Your task to perform on an android device: turn on data saver in the chrome app Image 0: 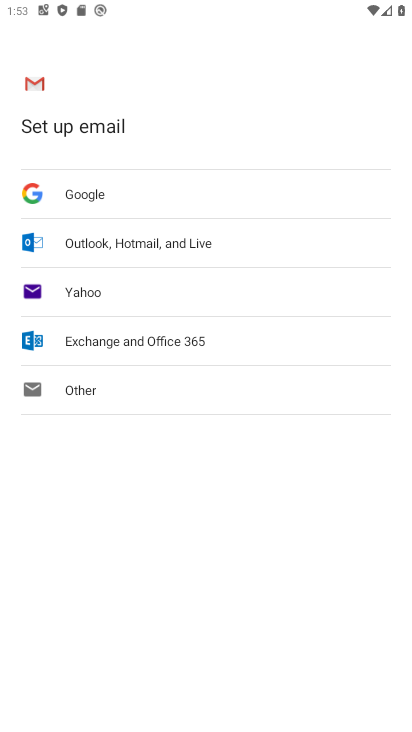
Step 0: press home button
Your task to perform on an android device: turn on data saver in the chrome app Image 1: 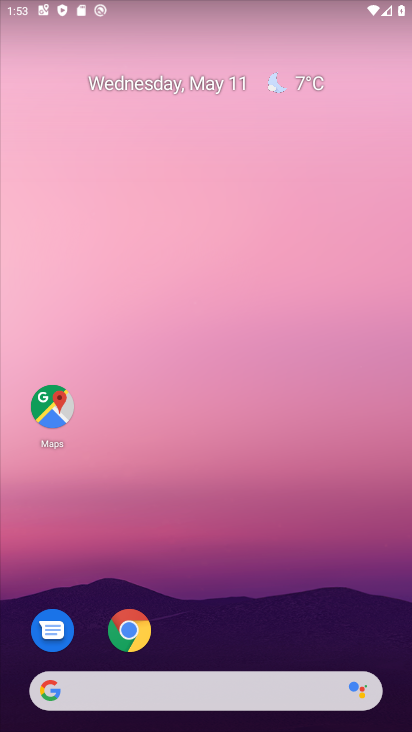
Step 1: drag from (381, 641) to (295, 69)
Your task to perform on an android device: turn on data saver in the chrome app Image 2: 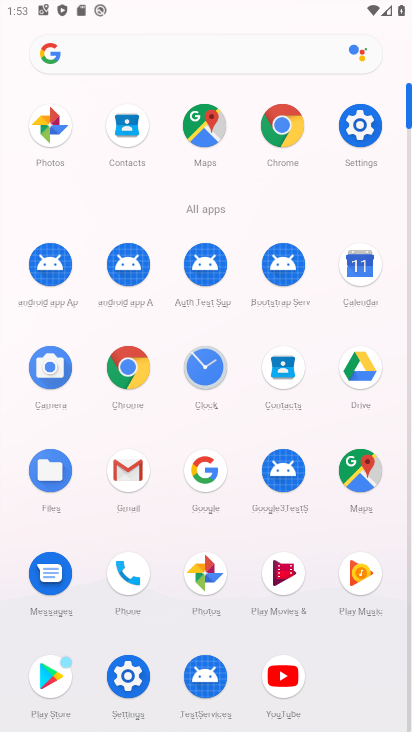
Step 2: click (292, 133)
Your task to perform on an android device: turn on data saver in the chrome app Image 3: 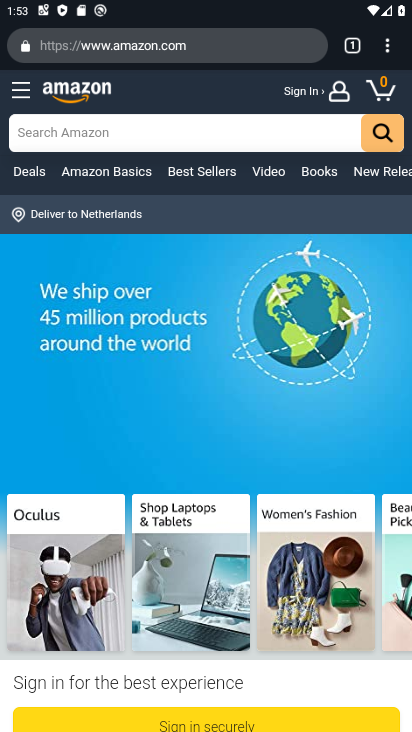
Step 3: press back button
Your task to perform on an android device: turn on data saver in the chrome app Image 4: 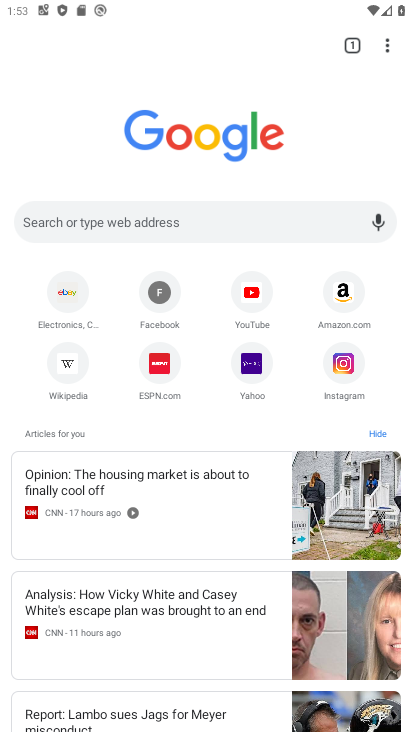
Step 4: click (387, 41)
Your task to perform on an android device: turn on data saver in the chrome app Image 5: 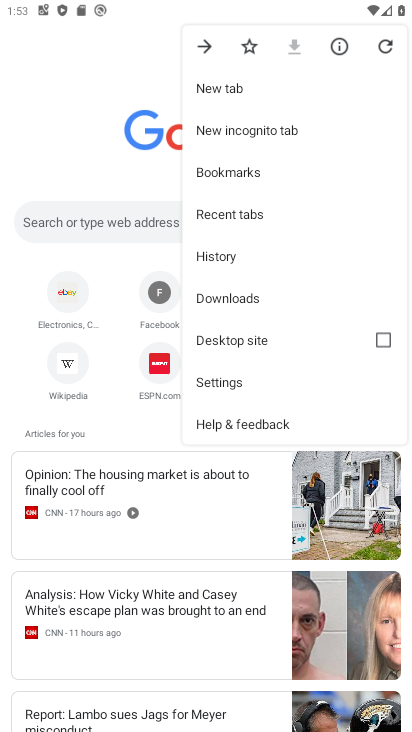
Step 5: click (254, 381)
Your task to perform on an android device: turn on data saver in the chrome app Image 6: 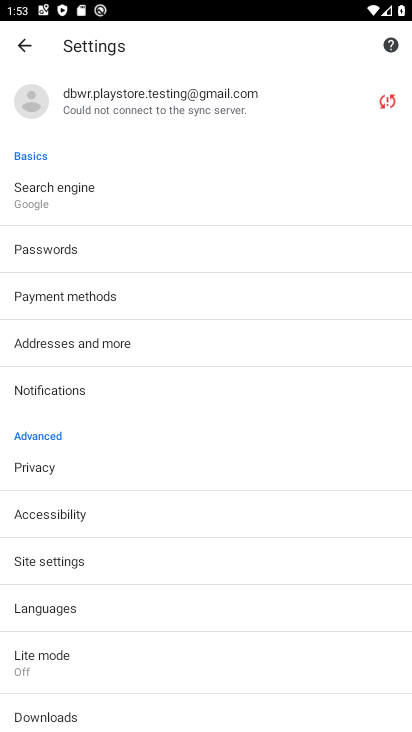
Step 6: click (122, 667)
Your task to perform on an android device: turn on data saver in the chrome app Image 7: 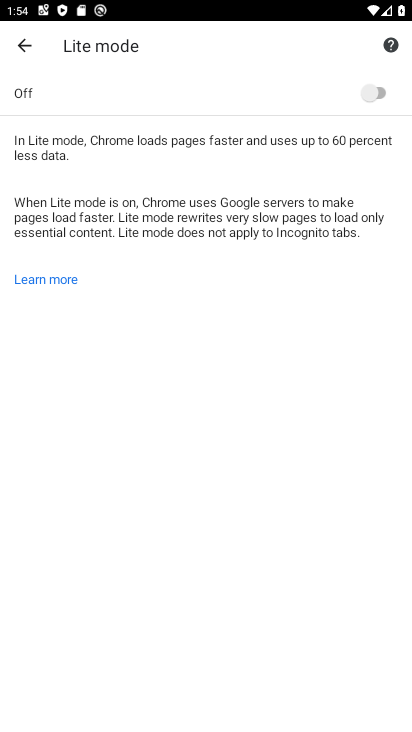
Step 7: click (355, 90)
Your task to perform on an android device: turn on data saver in the chrome app Image 8: 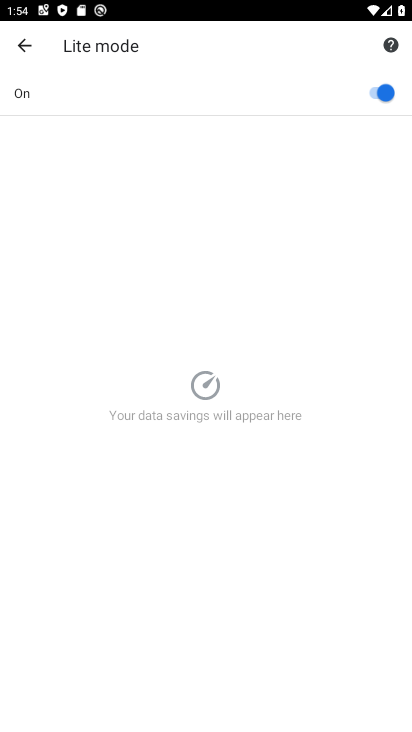
Step 8: task complete